Your task to perform on an android device: set an alarm Image 0: 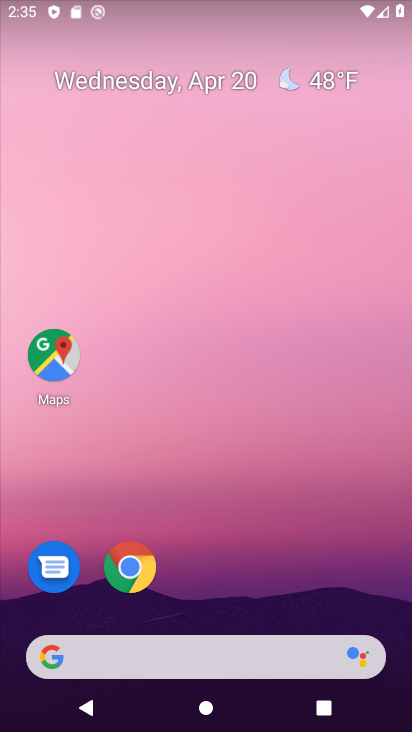
Step 0: drag from (224, 571) to (224, 119)
Your task to perform on an android device: set an alarm Image 1: 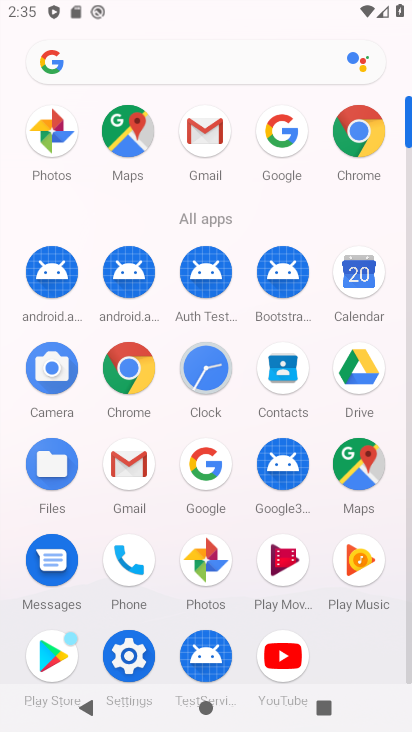
Step 1: click (214, 381)
Your task to perform on an android device: set an alarm Image 2: 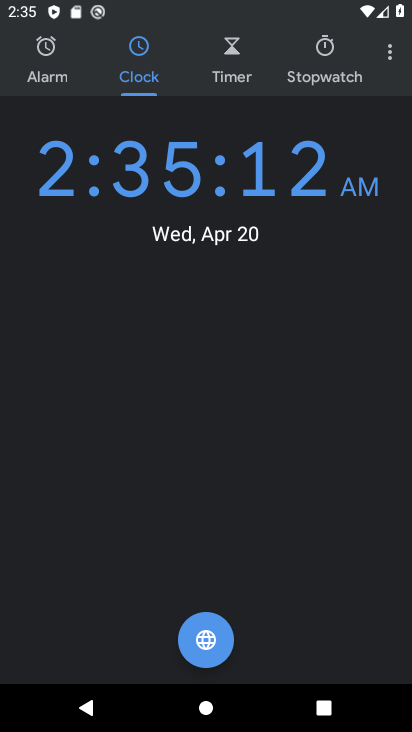
Step 2: click (51, 56)
Your task to perform on an android device: set an alarm Image 3: 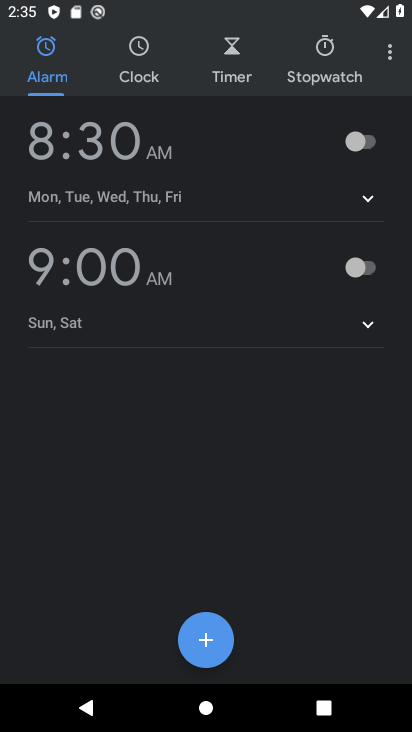
Step 3: click (367, 137)
Your task to perform on an android device: set an alarm Image 4: 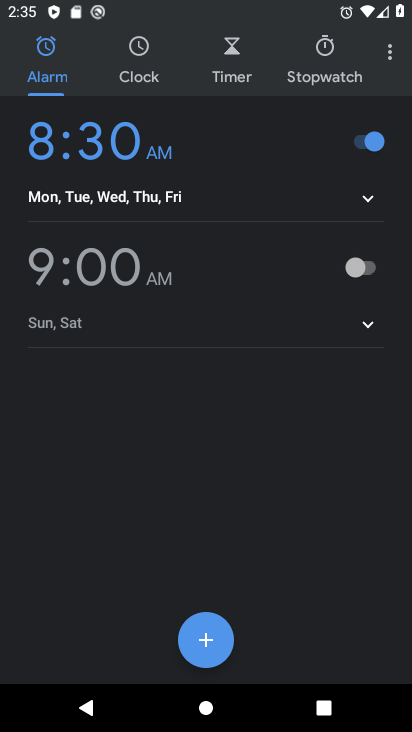
Step 4: task complete